Your task to perform on an android device: check storage Image 0: 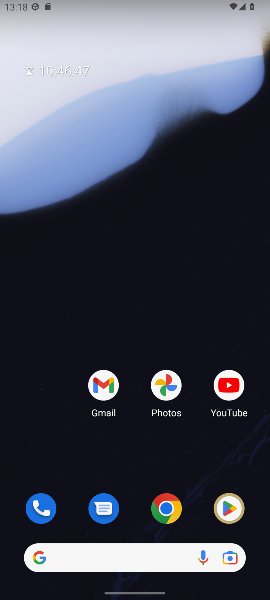
Step 0: press home button
Your task to perform on an android device: check storage Image 1: 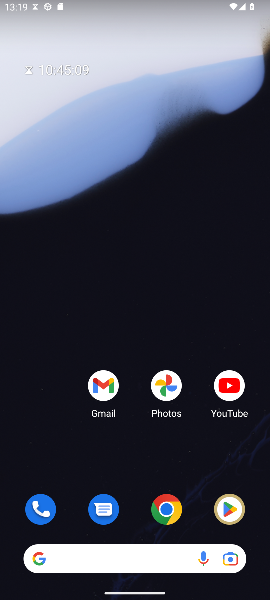
Step 1: drag from (136, 522) to (179, 153)
Your task to perform on an android device: check storage Image 2: 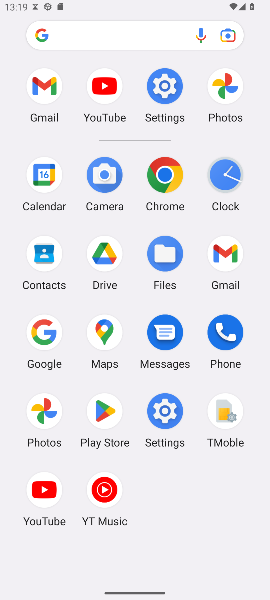
Step 2: click (156, 411)
Your task to perform on an android device: check storage Image 3: 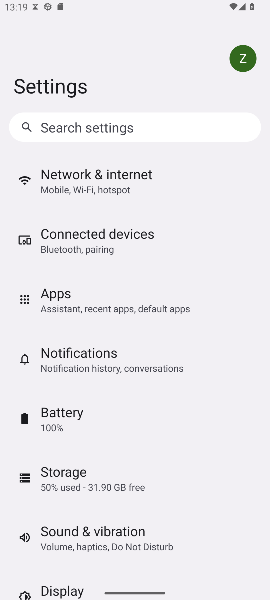
Step 3: click (72, 481)
Your task to perform on an android device: check storage Image 4: 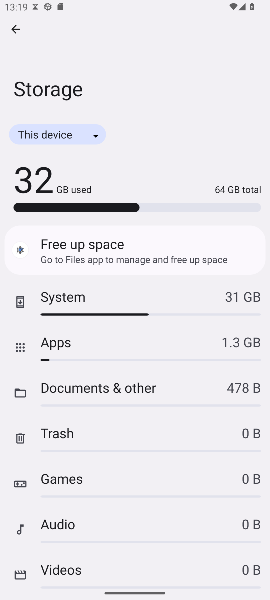
Step 4: task complete